Your task to perform on an android device: Empty the shopping cart on target.com. Search for "lenovo thinkpad" on target.com, select the first entry, and add it to the cart. Image 0: 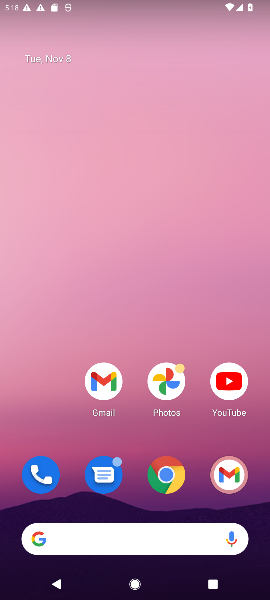
Step 0: drag from (139, 498) to (140, 127)
Your task to perform on an android device: Empty the shopping cart on target.com. Search for "lenovo thinkpad" on target.com, select the first entry, and add it to the cart. Image 1: 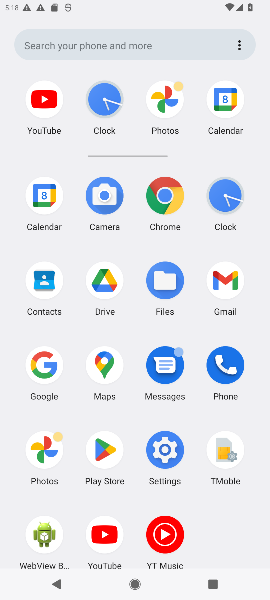
Step 1: click (39, 361)
Your task to perform on an android device: Empty the shopping cart on target.com. Search for "lenovo thinkpad" on target.com, select the first entry, and add it to the cart. Image 2: 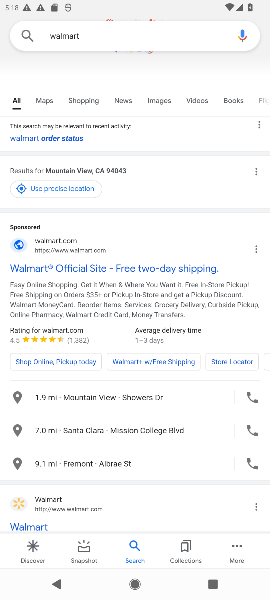
Step 2: click (117, 35)
Your task to perform on an android device: Empty the shopping cart on target.com. Search for "lenovo thinkpad" on target.com, select the first entry, and add it to the cart. Image 3: 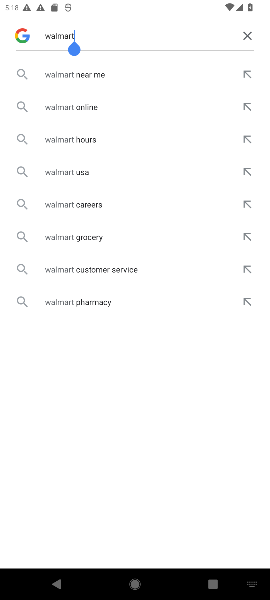
Step 3: click (247, 40)
Your task to perform on an android device: Empty the shopping cart on target.com. Search for "lenovo thinkpad" on target.com, select the first entry, and add it to the cart. Image 4: 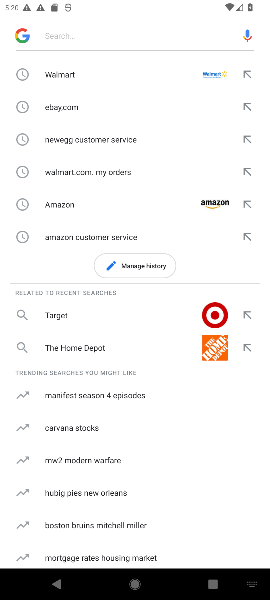
Step 4: click (86, 35)
Your task to perform on an android device: Empty the shopping cart on target.com. Search for "lenovo thinkpad" on target.com, select the first entry, and add it to the cart. Image 5: 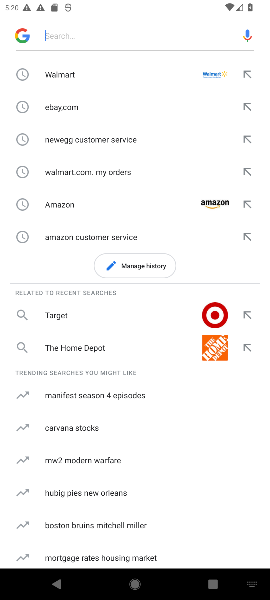
Step 5: type "target "
Your task to perform on an android device: Empty the shopping cart on target.com. Search for "lenovo thinkpad" on target.com, select the first entry, and add it to the cart. Image 6: 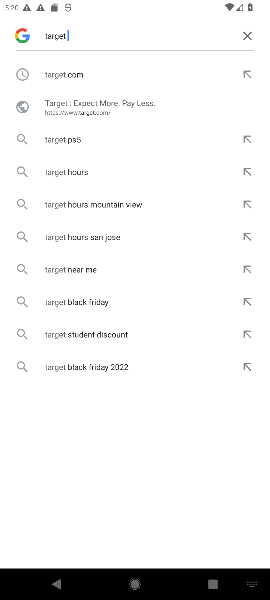
Step 6: click (55, 67)
Your task to perform on an android device: Empty the shopping cart on target.com. Search for "lenovo thinkpad" on target.com, select the first entry, and add it to the cart. Image 7: 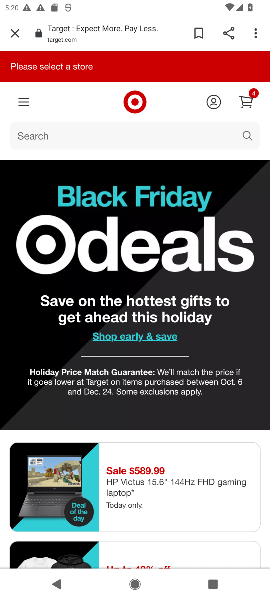
Step 7: click (92, 136)
Your task to perform on an android device: Empty the shopping cart on target.com. Search for "lenovo thinkpad" on target.com, select the first entry, and add it to the cart. Image 8: 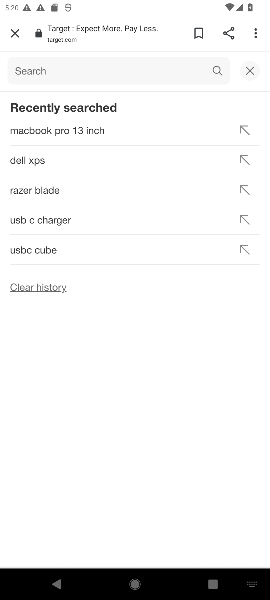
Step 8: click (89, 72)
Your task to perform on an android device: Empty the shopping cart on target.com. Search for "lenovo thinkpad" on target.com, select the first entry, and add it to the cart. Image 9: 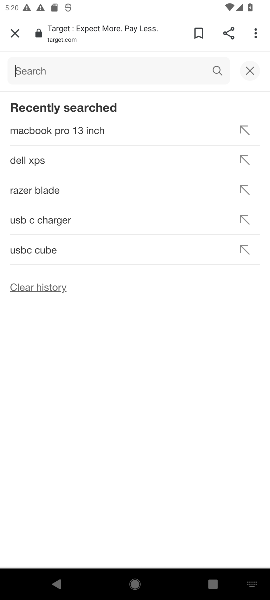
Step 9: type "lenovo thinkpad "
Your task to perform on an android device: Empty the shopping cart on target.com. Search for "lenovo thinkpad" on target.com, select the first entry, and add it to the cart. Image 10: 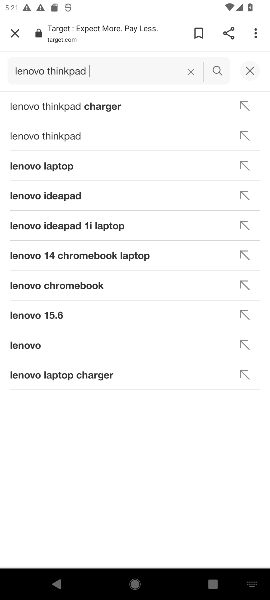
Step 10: click (57, 132)
Your task to perform on an android device: Empty the shopping cart on target.com. Search for "lenovo thinkpad" on target.com, select the first entry, and add it to the cart. Image 11: 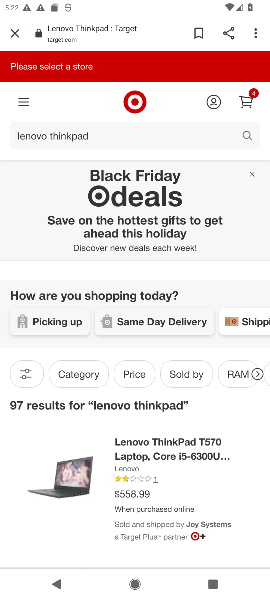
Step 11: click (152, 447)
Your task to perform on an android device: Empty the shopping cart on target.com. Search for "lenovo thinkpad" on target.com, select the first entry, and add it to the cart. Image 12: 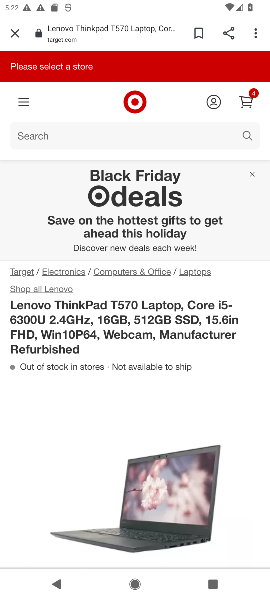
Step 12: drag from (165, 453) to (174, 199)
Your task to perform on an android device: Empty the shopping cart on target.com. Search for "lenovo thinkpad" on target.com, select the first entry, and add it to the cart. Image 13: 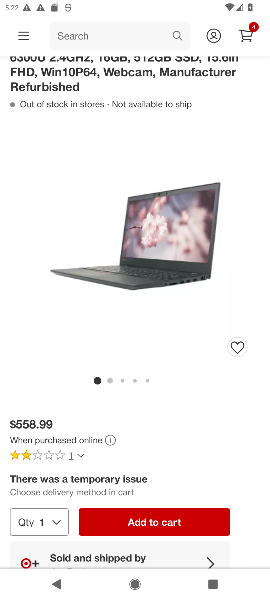
Step 13: click (144, 522)
Your task to perform on an android device: Empty the shopping cart on target.com. Search for "lenovo thinkpad" on target.com, select the first entry, and add it to the cart. Image 14: 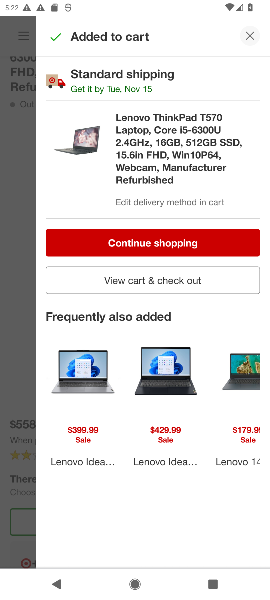
Step 14: task complete